Your task to perform on an android device: clear history in the chrome app Image 0: 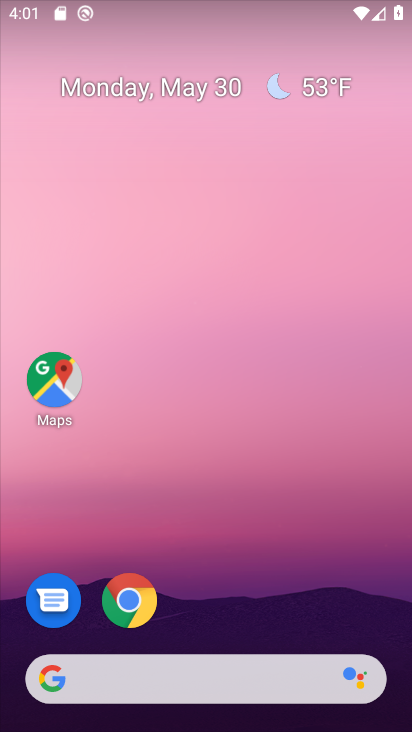
Step 0: drag from (305, 552) to (268, 92)
Your task to perform on an android device: clear history in the chrome app Image 1: 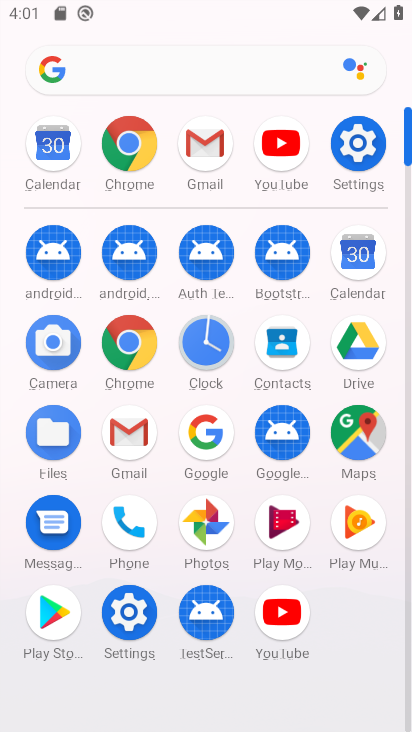
Step 1: click (126, 161)
Your task to perform on an android device: clear history in the chrome app Image 2: 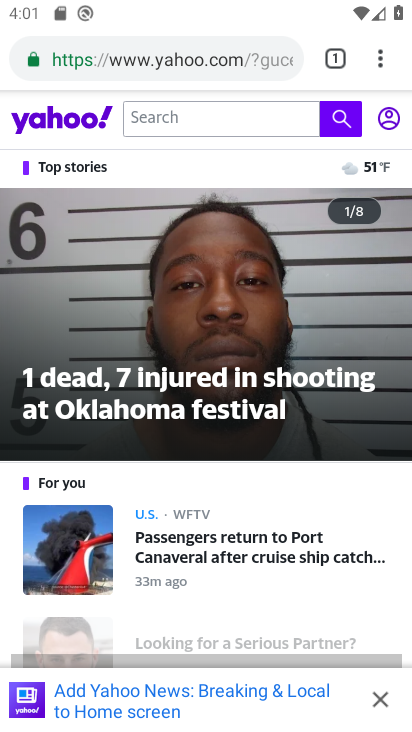
Step 2: drag from (379, 53) to (203, 333)
Your task to perform on an android device: clear history in the chrome app Image 3: 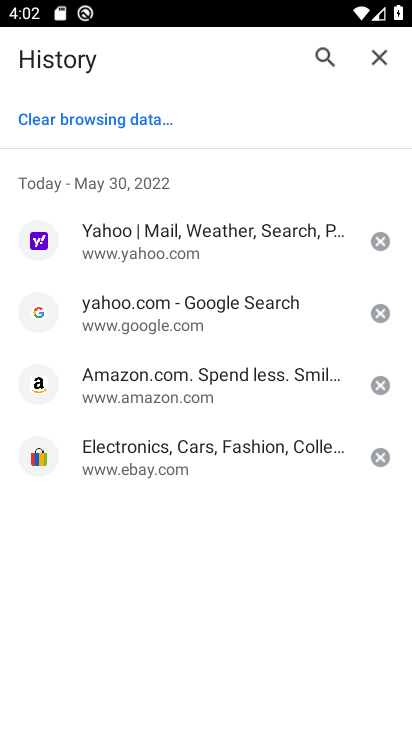
Step 3: click (60, 126)
Your task to perform on an android device: clear history in the chrome app Image 4: 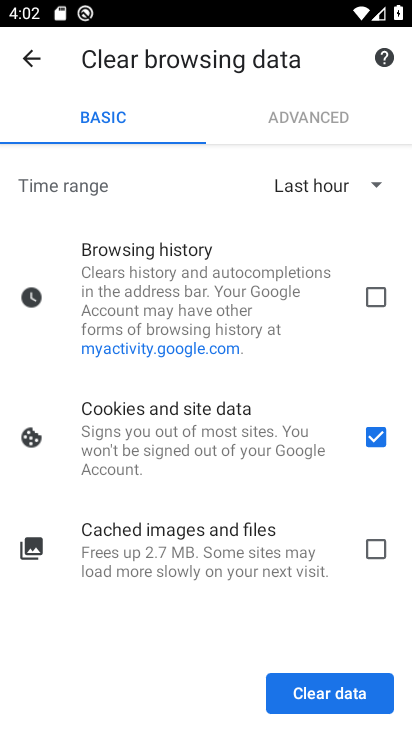
Step 4: click (341, 289)
Your task to perform on an android device: clear history in the chrome app Image 5: 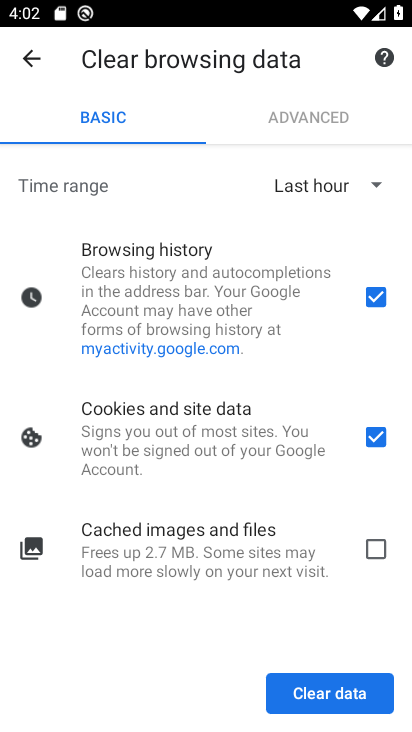
Step 5: click (375, 437)
Your task to perform on an android device: clear history in the chrome app Image 6: 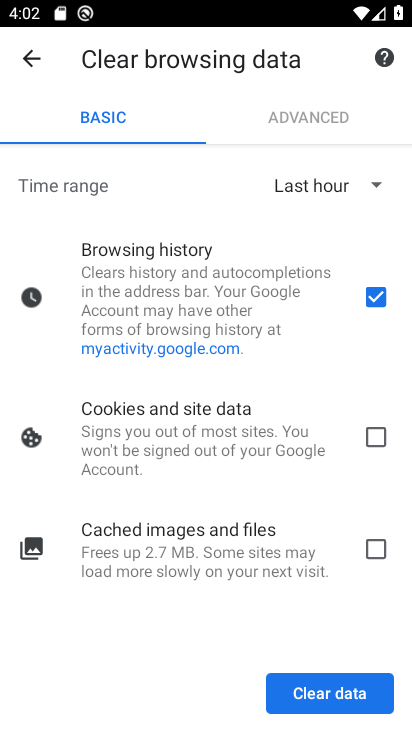
Step 6: click (336, 698)
Your task to perform on an android device: clear history in the chrome app Image 7: 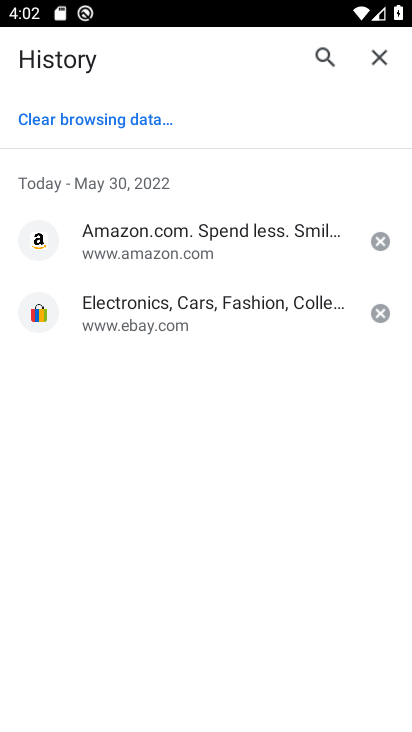
Step 7: task complete